Your task to perform on an android device: open a new tab in the chrome app Image 0: 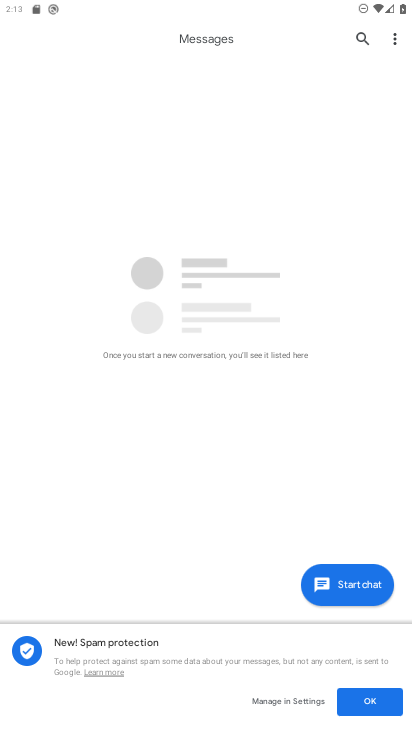
Step 0: press home button
Your task to perform on an android device: open a new tab in the chrome app Image 1: 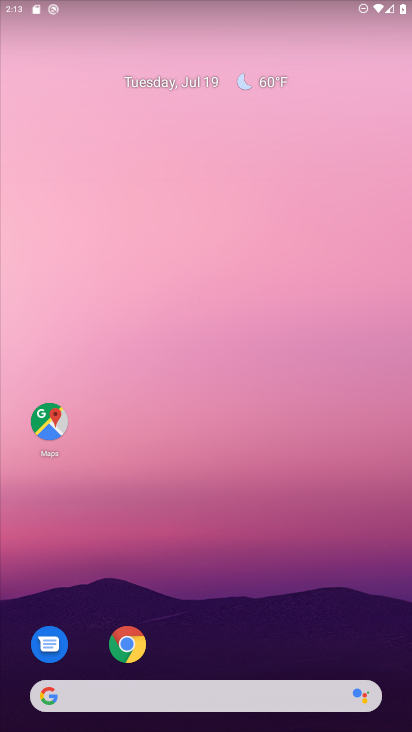
Step 1: click (123, 636)
Your task to perform on an android device: open a new tab in the chrome app Image 2: 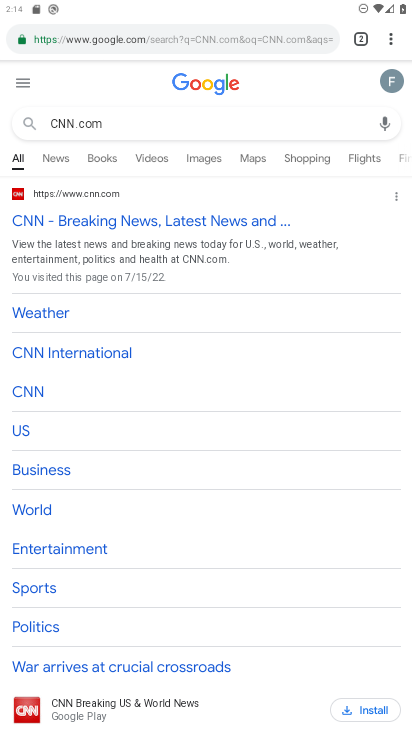
Step 2: click (390, 33)
Your task to perform on an android device: open a new tab in the chrome app Image 3: 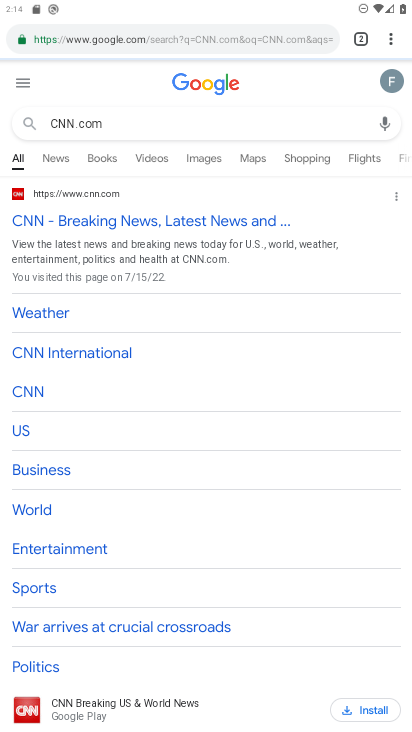
Step 3: click (392, 35)
Your task to perform on an android device: open a new tab in the chrome app Image 4: 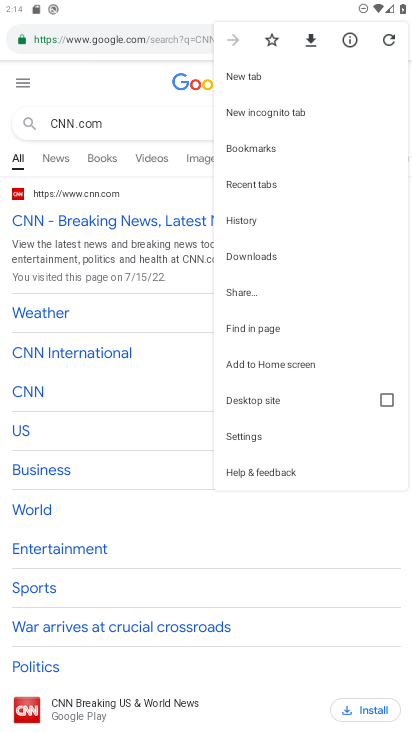
Step 4: click (240, 77)
Your task to perform on an android device: open a new tab in the chrome app Image 5: 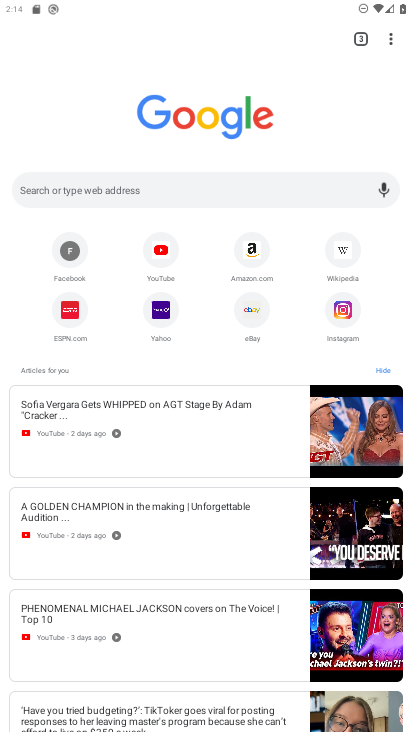
Step 5: task complete